Your task to perform on an android device: turn on bluetooth scan Image 0: 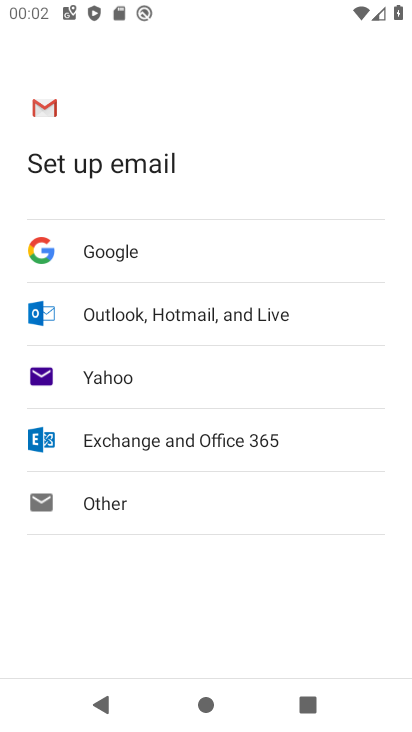
Step 0: drag from (181, 591) to (226, 339)
Your task to perform on an android device: turn on bluetooth scan Image 1: 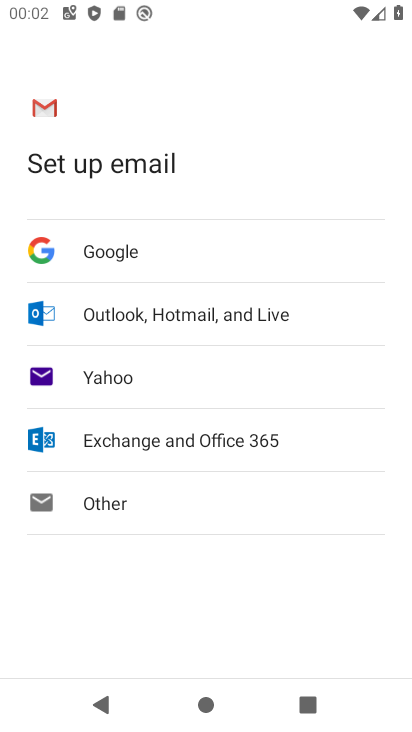
Step 1: press home button
Your task to perform on an android device: turn on bluetooth scan Image 2: 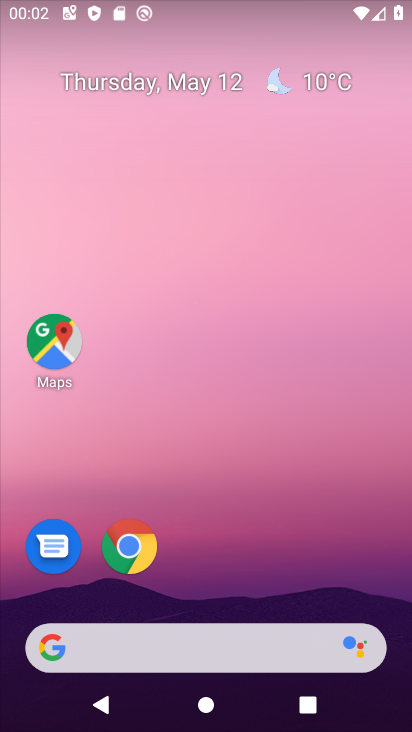
Step 2: drag from (135, 588) to (197, 175)
Your task to perform on an android device: turn on bluetooth scan Image 3: 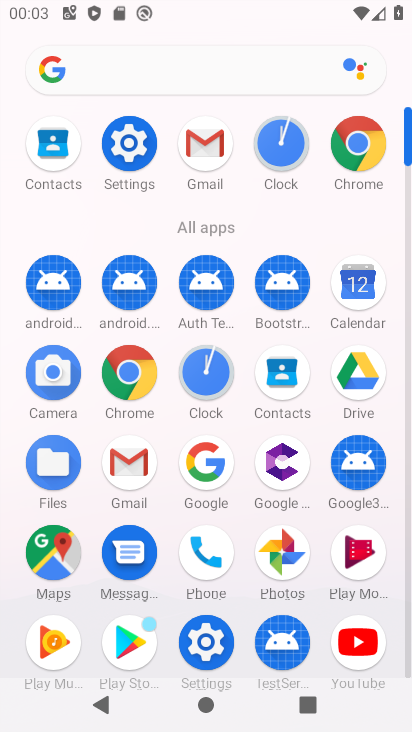
Step 3: click (208, 645)
Your task to perform on an android device: turn on bluetooth scan Image 4: 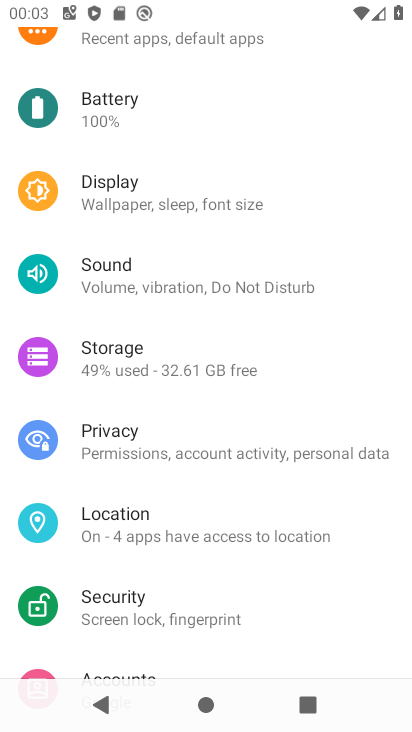
Step 4: drag from (190, 497) to (238, 258)
Your task to perform on an android device: turn on bluetooth scan Image 5: 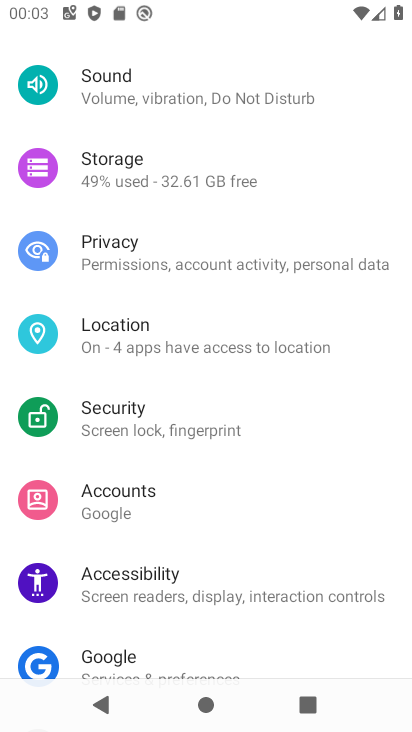
Step 5: click (186, 350)
Your task to perform on an android device: turn on bluetooth scan Image 6: 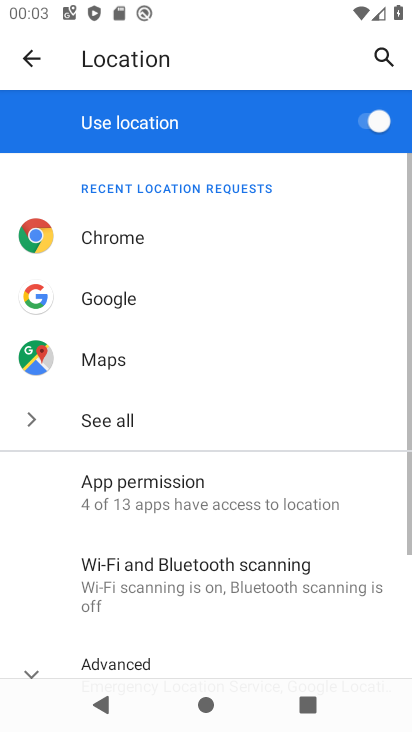
Step 6: drag from (147, 614) to (218, 371)
Your task to perform on an android device: turn on bluetooth scan Image 7: 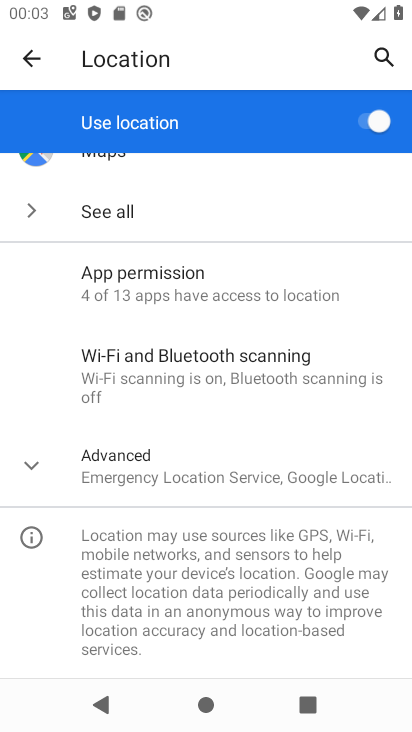
Step 7: click (214, 373)
Your task to perform on an android device: turn on bluetooth scan Image 8: 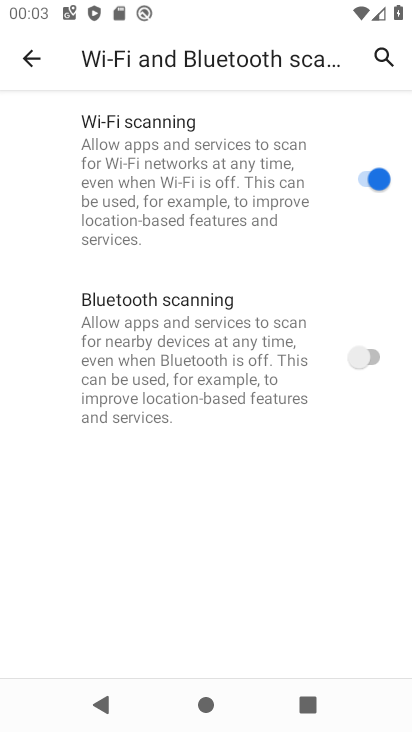
Step 8: click (375, 356)
Your task to perform on an android device: turn on bluetooth scan Image 9: 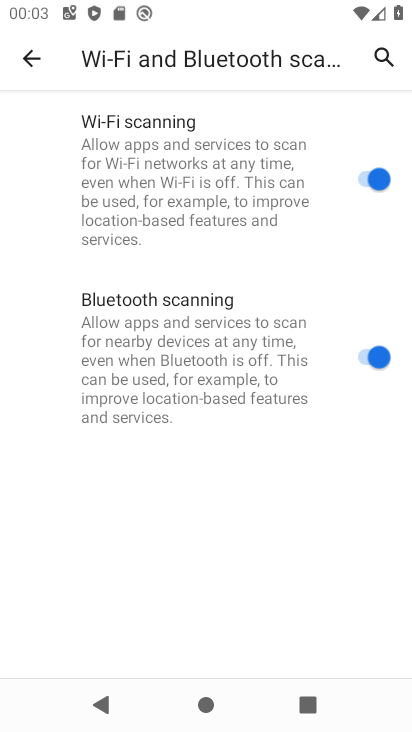
Step 9: task complete